Your task to perform on an android device: Open eBay Image 0: 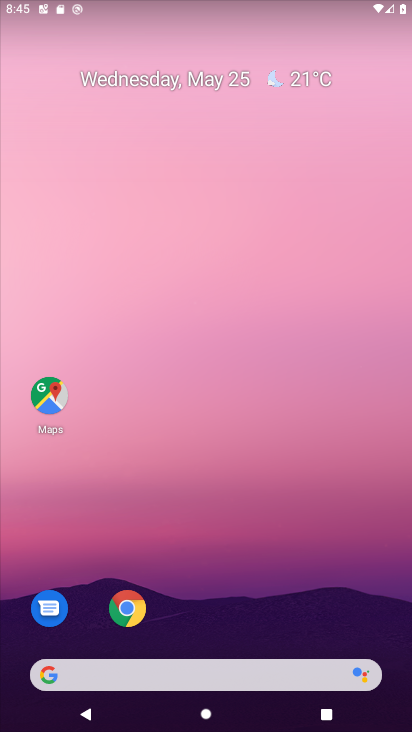
Step 0: click (127, 614)
Your task to perform on an android device: Open eBay Image 1: 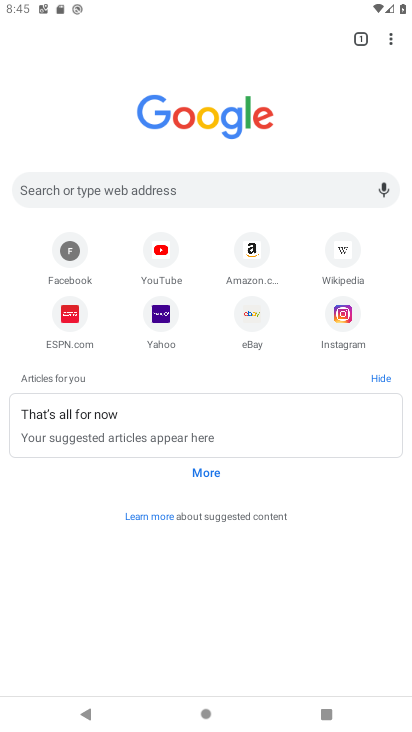
Step 1: click (252, 316)
Your task to perform on an android device: Open eBay Image 2: 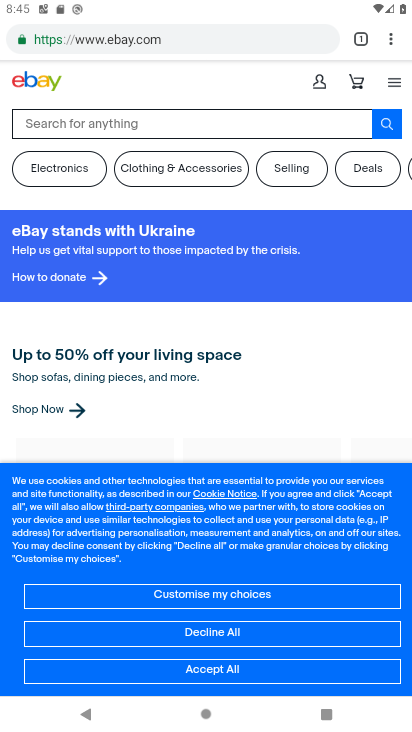
Step 2: task complete